Your task to perform on an android device: Open accessibility settings Image 0: 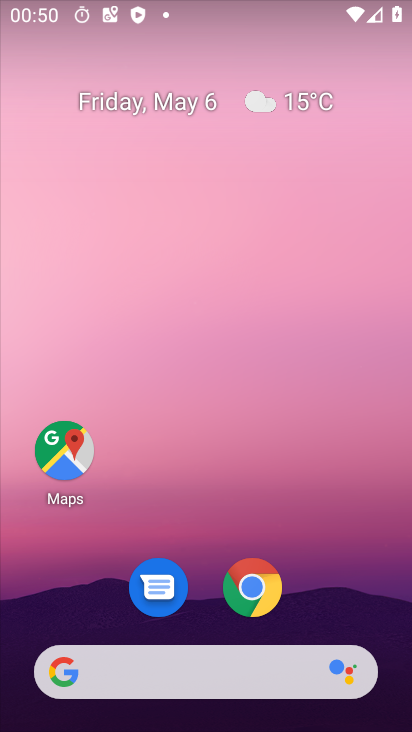
Step 0: drag from (386, 535) to (388, 185)
Your task to perform on an android device: Open accessibility settings Image 1: 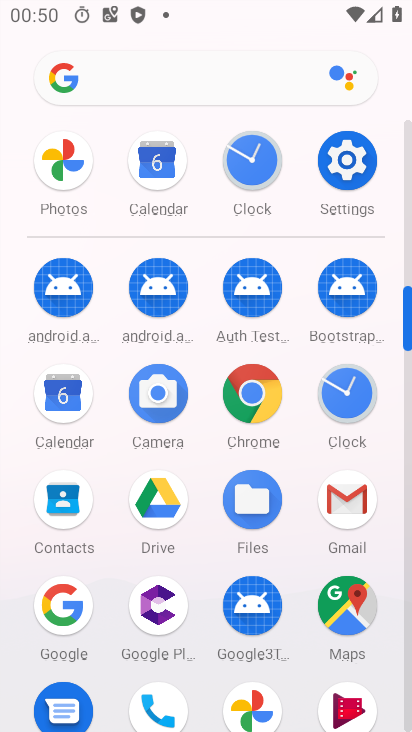
Step 1: click (359, 148)
Your task to perform on an android device: Open accessibility settings Image 2: 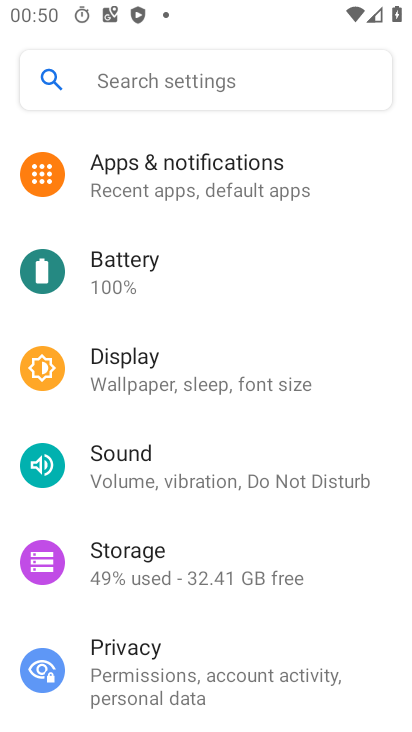
Step 2: drag from (376, 658) to (411, 252)
Your task to perform on an android device: Open accessibility settings Image 3: 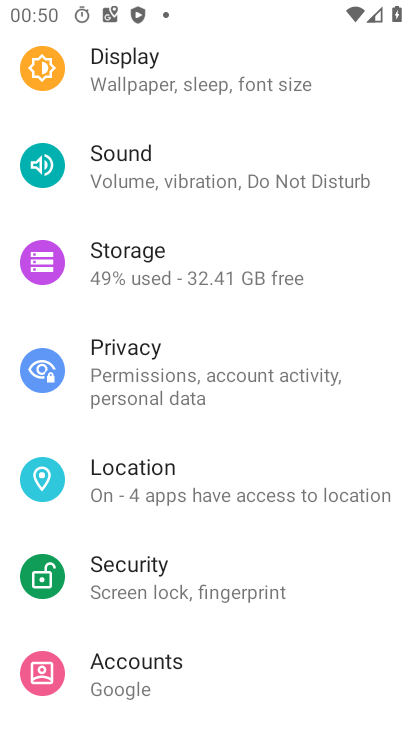
Step 3: drag from (363, 672) to (351, 330)
Your task to perform on an android device: Open accessibility settings Image 4: 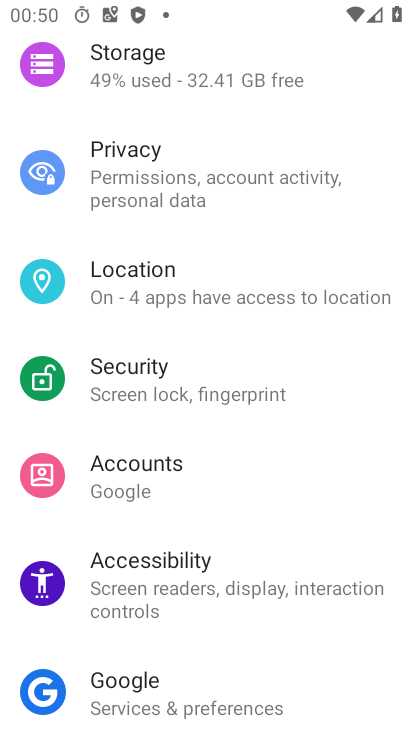
Step 4: click (155, 568)
Your task to perform on an android device: Open accessibility settings Image 5: 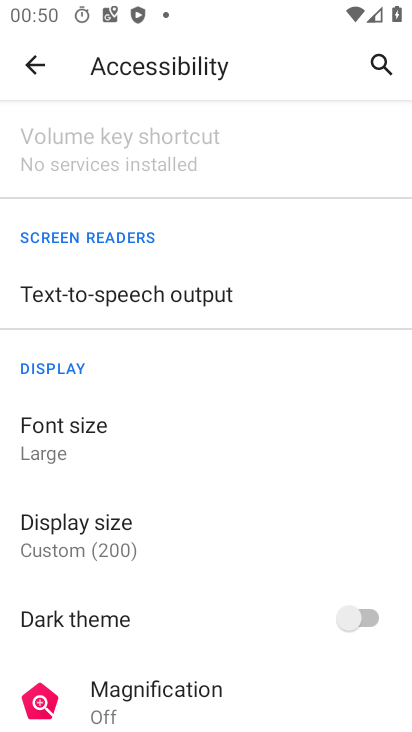
Step 5: task complete